Your task to perform on an android device: Open Google Chrome Image 0: 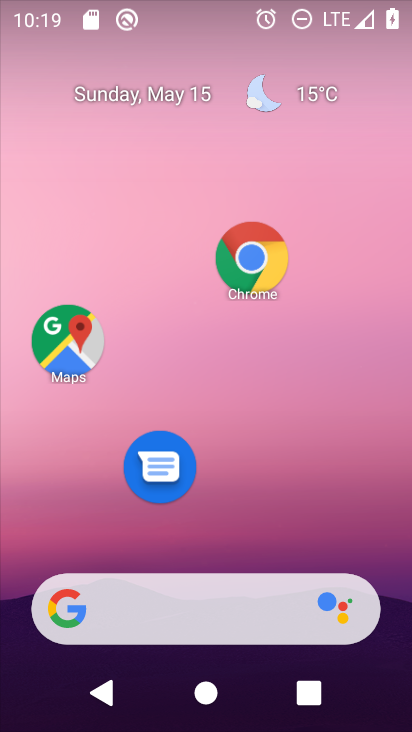
Step 0: click (259, 257)
Your task to perform on an android device: Open Google Chrome Image 1: 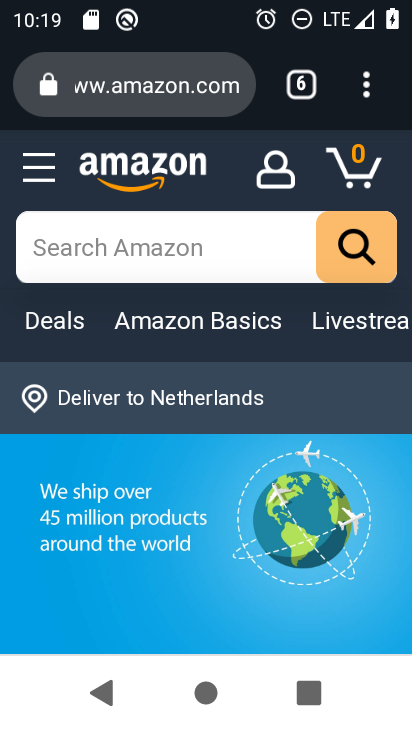
Step 1: task complete